Your task to perform on an android device: toggle improve location accuracy Image 0: 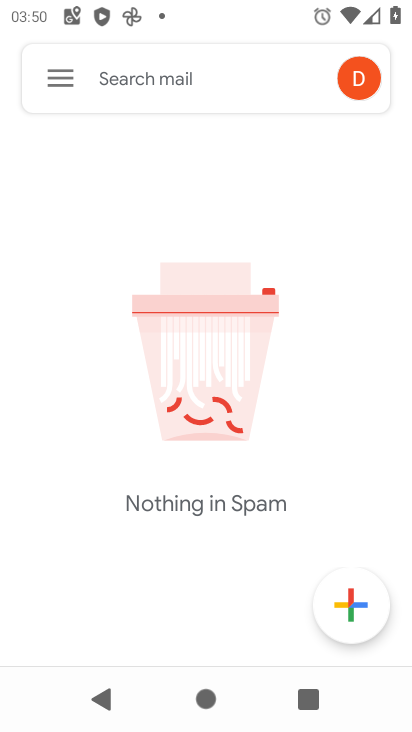
Step 0: press home button
Your task to perform on an android device: toggle improve location accuracy Image 1: 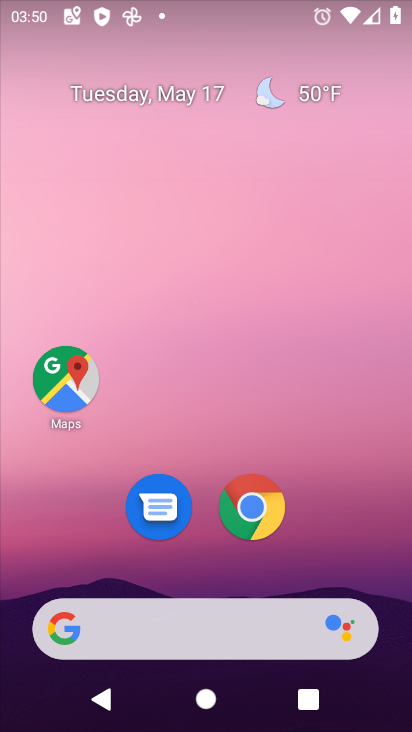
Step 1: drag from (318, 511) to (261, 55)
Your task to perform on an android device: toggle improve location accuracy Image 2: 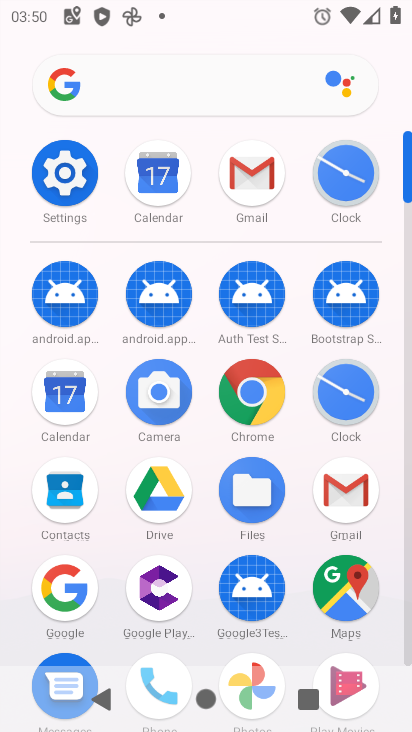
Step 2: click (78, 177)
Your task to perform on an android device: toggle improve location accuracy Image 3: 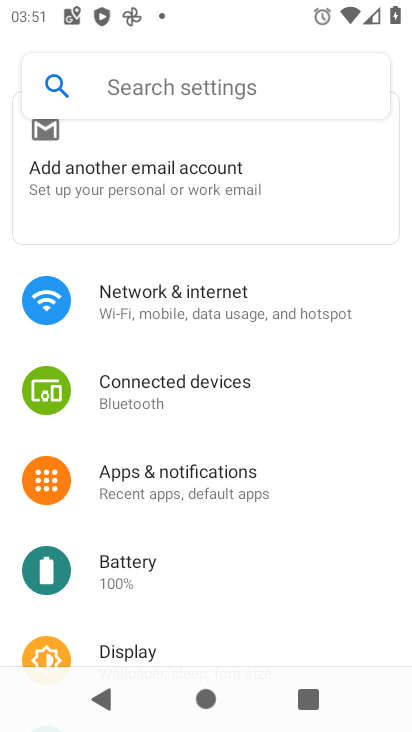
Step 3: drag from (220, 589) to (291, 185)
Your task to perform on an android device: toggle improve location accuracy Image 4: 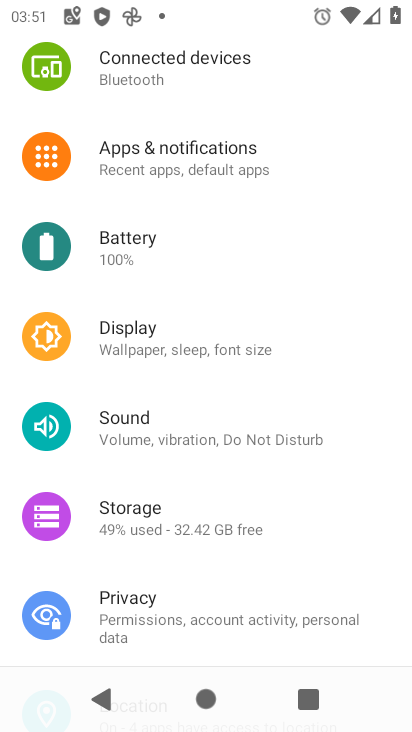
Step 4: drag from (222, 514) to (244, 163)
Your task to perform on an android device: toggle improve location accuracy Image 5: 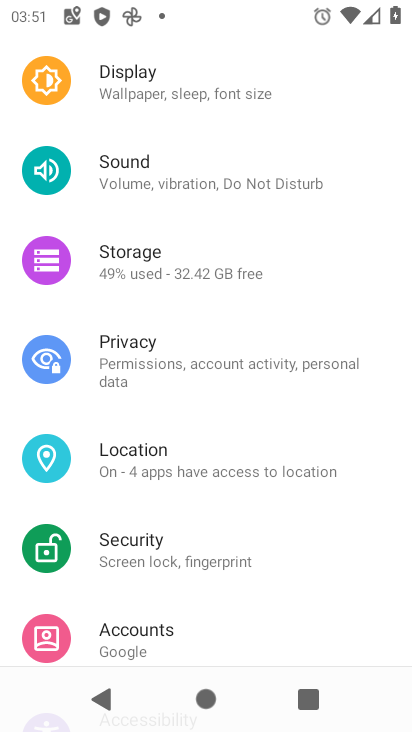
Step 5: click (196, 470)
Your task to perform on an android device: toggle improve location accuracy Image 6: 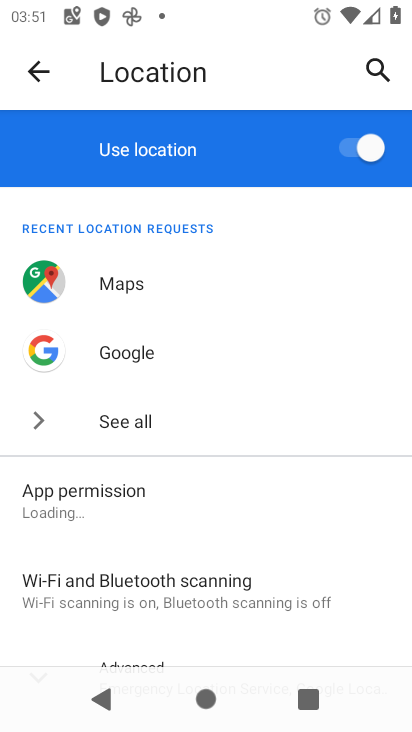
Step 6: drag from (233, 531) to (251, 258)
Your task to perform on an android device: toggle improve location accuracy Image 7: 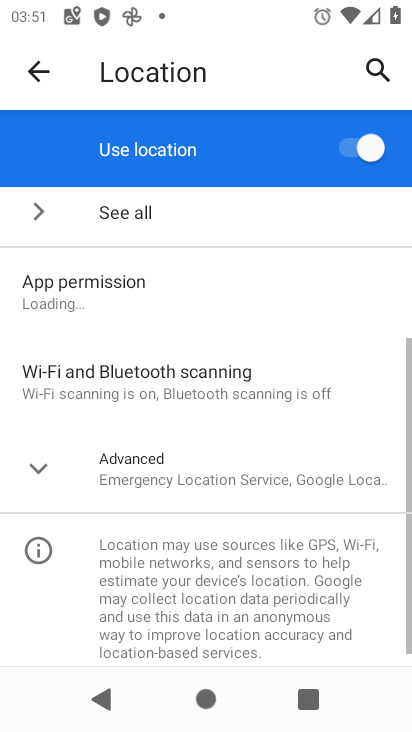
Step 7: click (216, 452)
Your task to perform on an android device: toggle improve location accuracy Image 8: 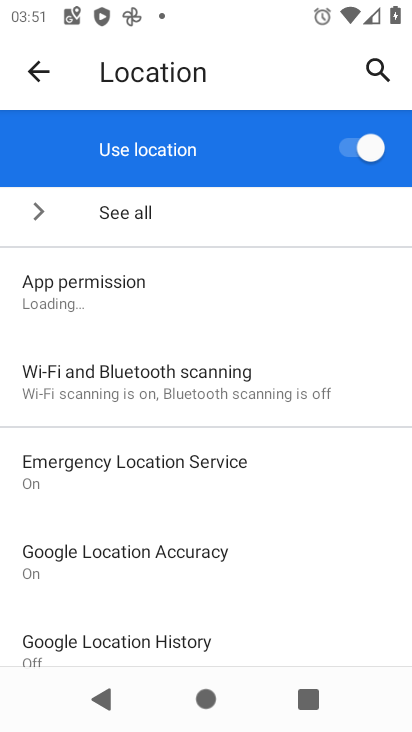
Step 8: click (229, 559)
Your task to perform on an android device: toggle improve location accuracy Image 9: 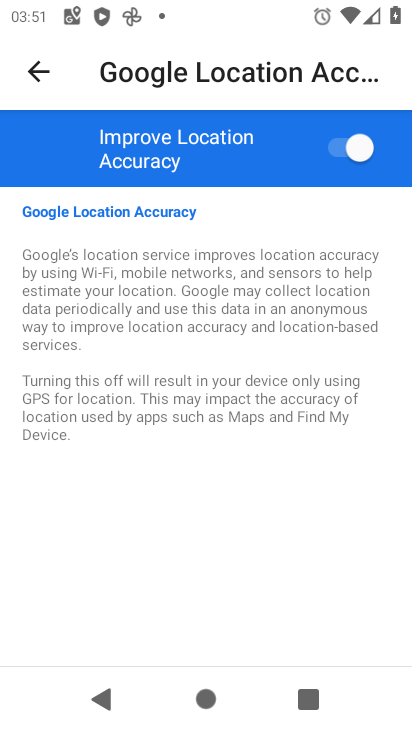
Step 9: click (349, 153)
Your task to perform on an android device: toggle improve location accuracy Image 10: 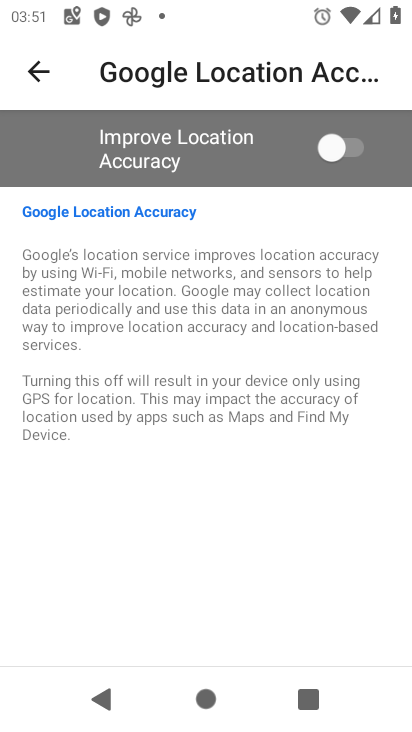
Step 10: task complete